Your task to perform on an android device: toggle notifications settings in the gmail app Image 0: 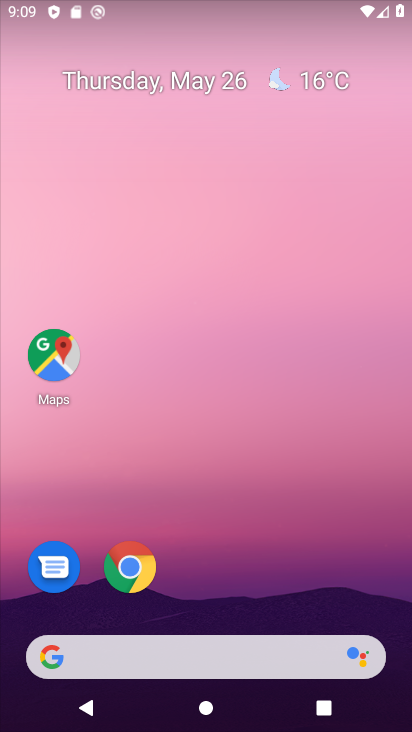
Step 0: drag from (400, 686) to (340, 171)
Your task to perform on an android device: toggle notifications settings in the gmail app Image 1: 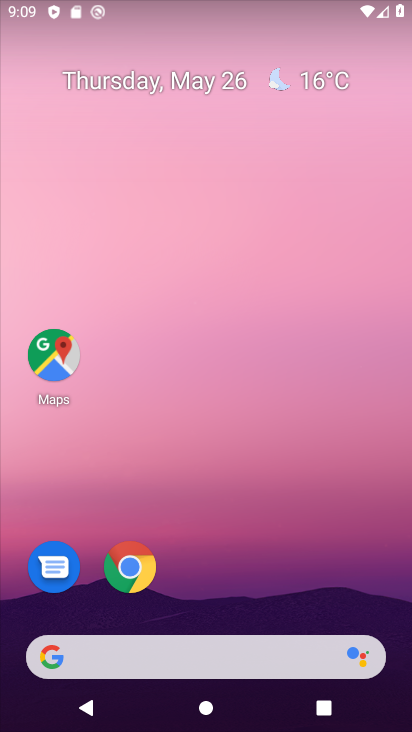
Step 1: drag from (397, 673) to (365, 177)
Your task to perform on an android device: toggle notifications settings in the gmail app Image 2: 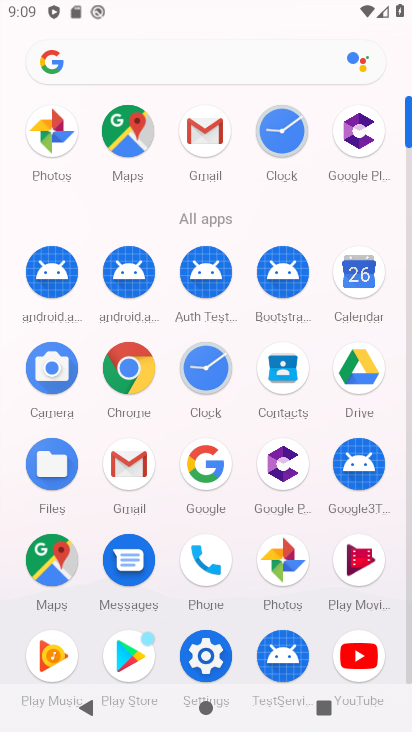
Step 2: click (123, 474)
Your task to perform on an android device: toggle notifications settings in the gmail app Image 3: 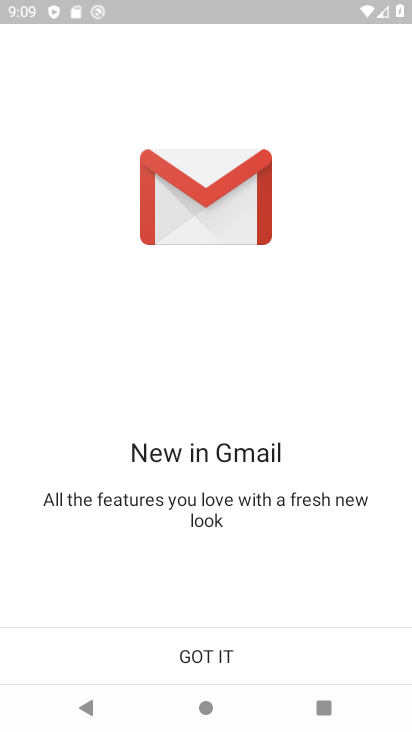
Step 3: click (198, 648)
Your task to perform on an android device: toggle notifications settings in the gmail app Image 4: 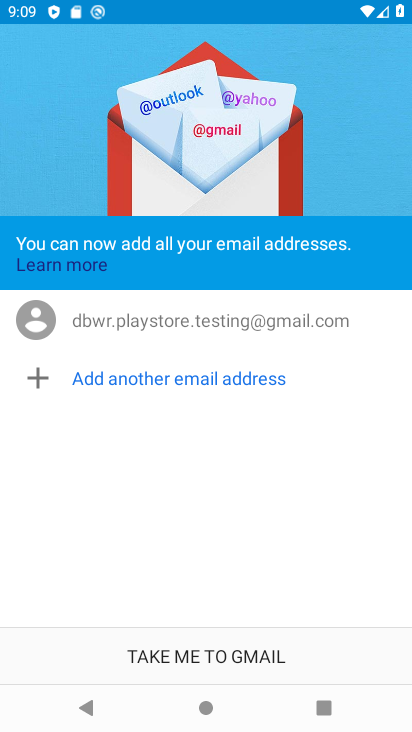
Step 4: click (206, 651)
Your task to perform on an android device: toggle notifications settings in the gmail app Image 5: 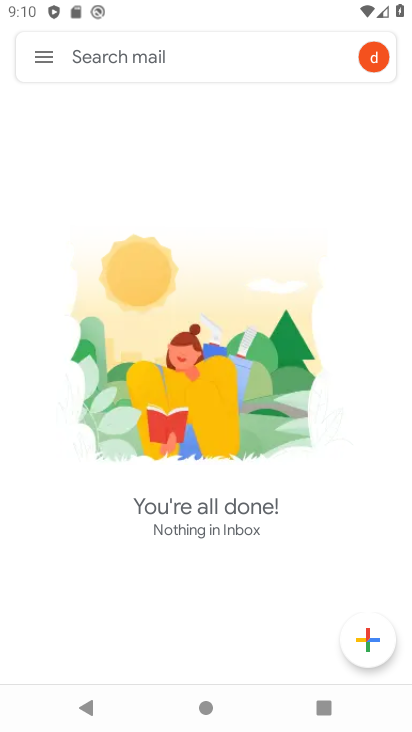
Step 5: click (37, 58)
Your task to perform on an android device: toggle notifications settings in the gmail app Image 6: 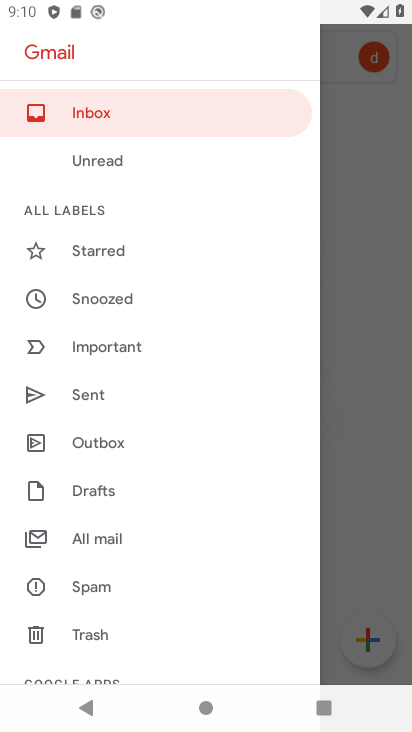
Step 6: drag from (195, 360) to (195, 236)
Your task to perform on an android device: toggle notifications settings in the gmail app Image 7: 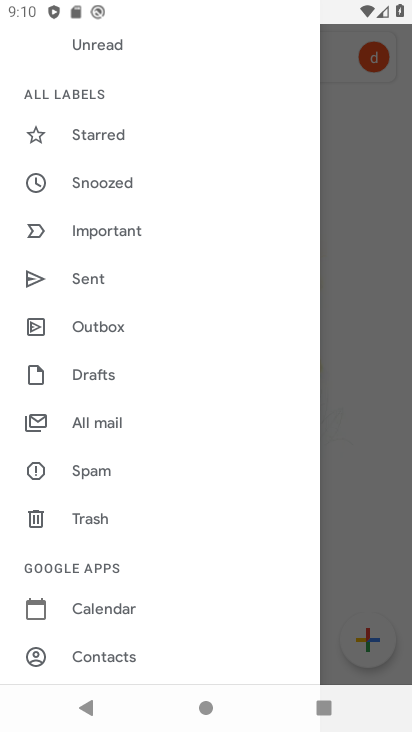
Step 7: drag from (200, 162) to (247, 637)
Your task to perform on an android device: toggle notifications settings in the gmail app Image 8: 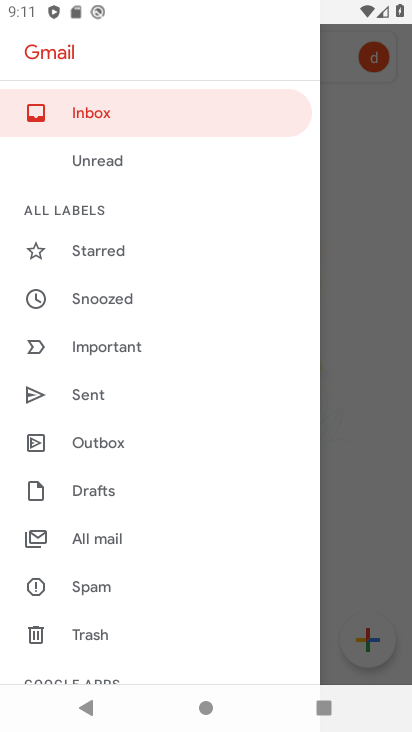
Step 8: drag from (210, 628) to (194, 182)
Your task to perform on an android device: toggle notifications settings in the gmail app Image 9: 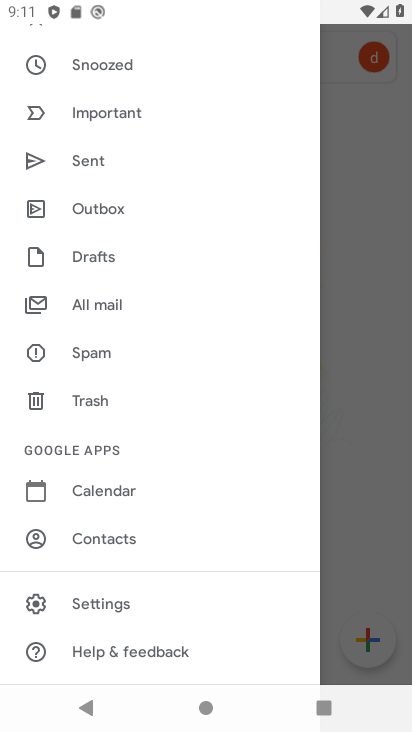
Step 9: drag from (226, 197) to (267, 624)
Your task to perform on an android device: toggle notifications settings in the gmail app Image 10: 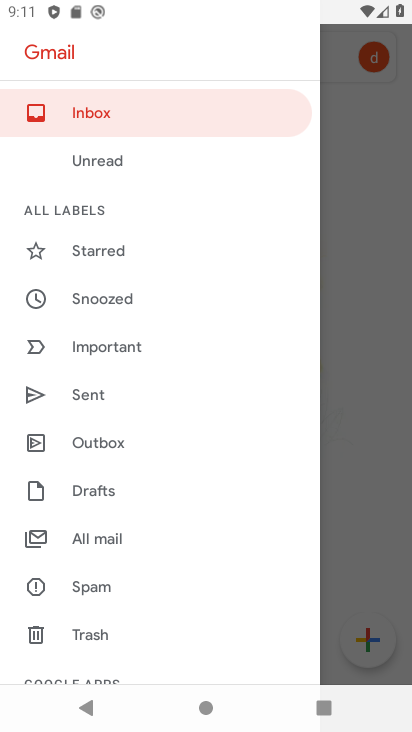
Step 10: press back button
Your task to perform on an android device: toggle notifications settings in the gmail app Image 11: 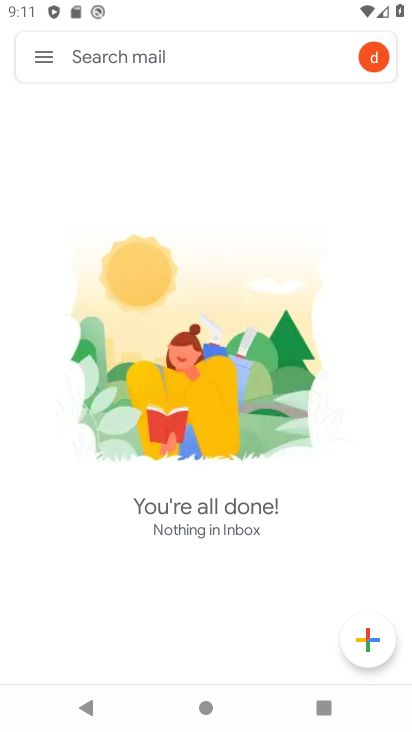
Step 11: click (29, 57)
Your task to perform on an android device: toggle notifications settings in the gmail app Image 12: 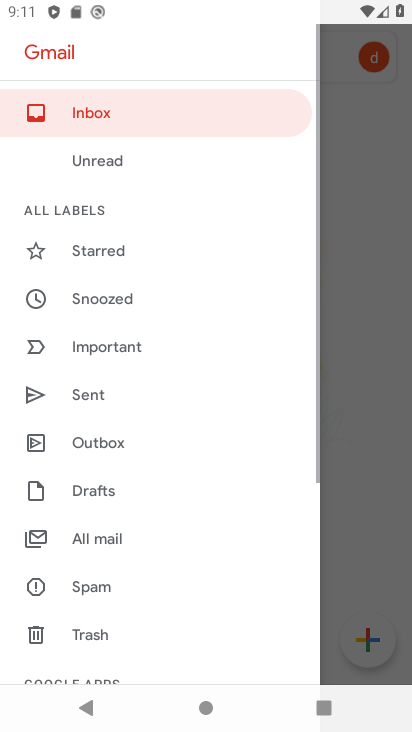
Step 12: drag from (246, 612) to (271, 197)
Your task to perform on an android device: toggle notifications settings in the gmail app Image 13: 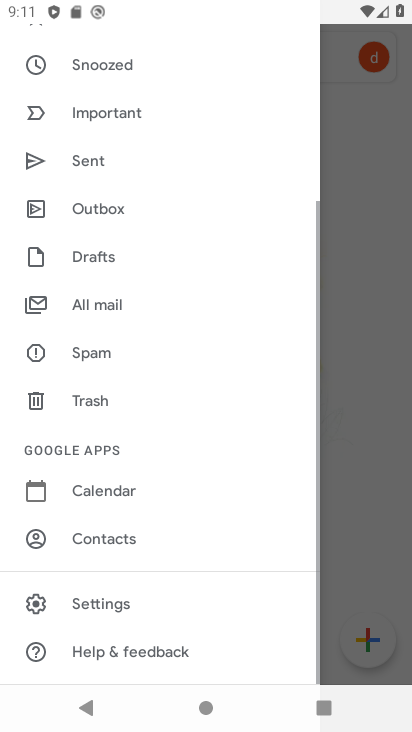
Step 13: click (88, 592)
Your task to perform on an android device: toggle notifications settings in the gmail app Image 14: 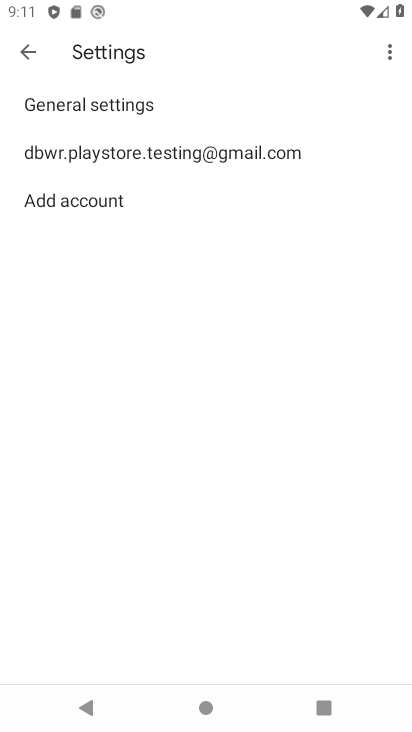
Step 14: click (87, 98)
Your task to perform on an android device: toggle notifications settings in the gmail app Image 15: 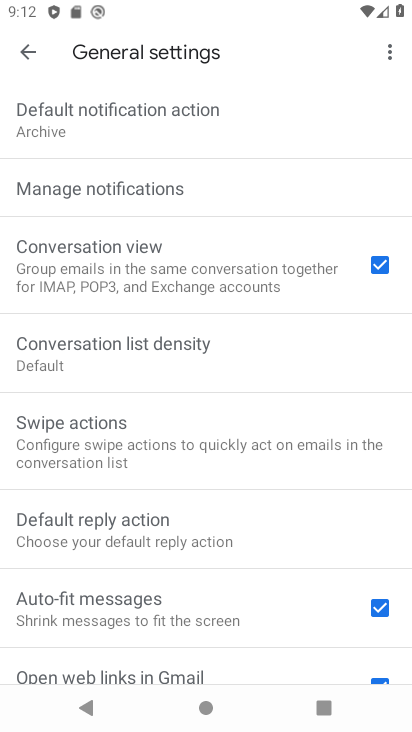
Step 15: click (115, 181)
Your task to perform on an android device: toggle notifications settings in the gmail app Image 16: 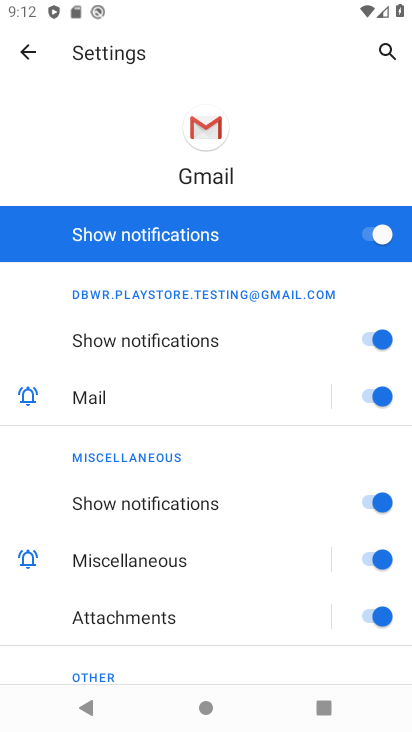
Step 16: click (367, 233)
Your task to perform on an android device: toggle notifications settings in the gmail app Image 17: 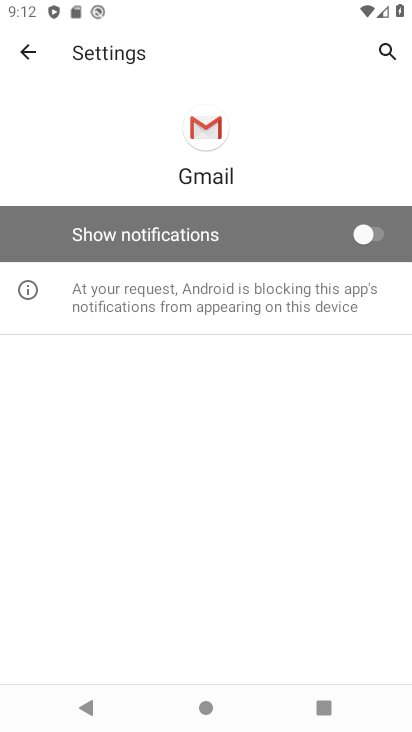
Step 17: task complete